Your task to perform on an android device: uninstall "HBO Max: Stream TV & Movies" Image 0: 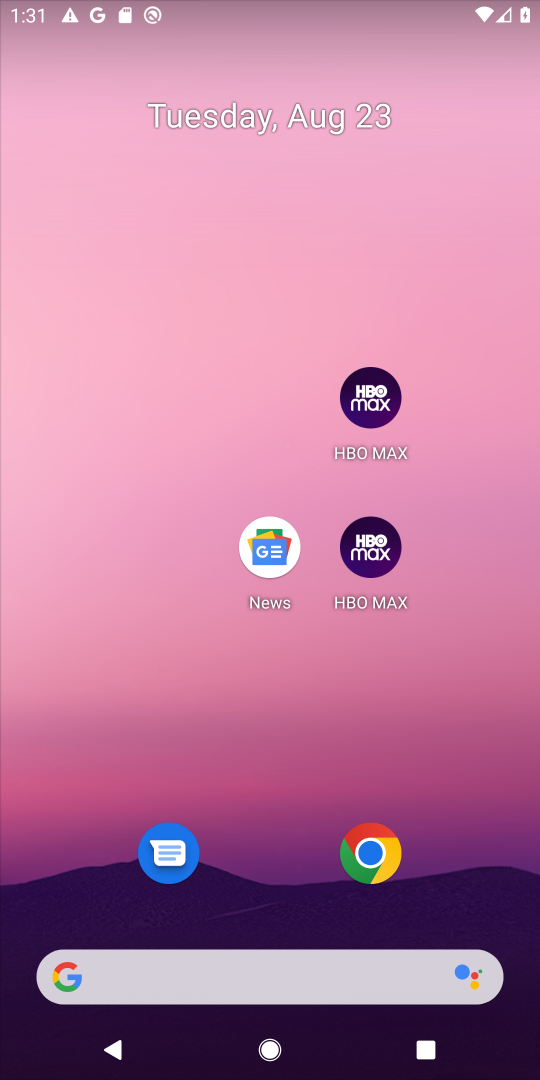
Step 0: drag from (520, 955) to (448, 111)
Your task to perform on an android device: uninstall "HBO Max: Stream TV & Movies" Image 1: 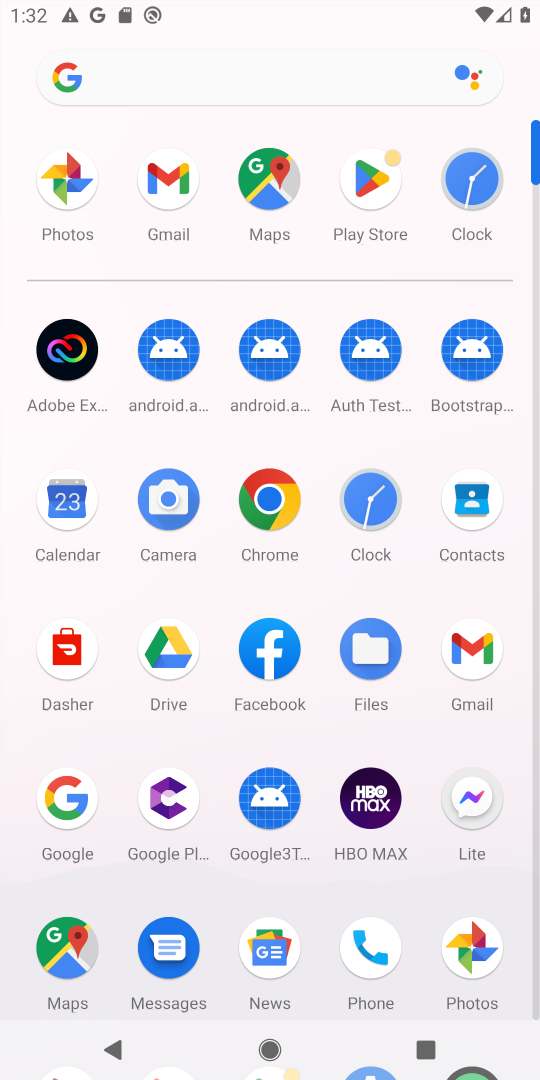
Step 1: drag from (416, 898) to (424, 350)
Your task to perform on an android device: uninstall "HBO Max: Stream TV & Movies" Image 2: 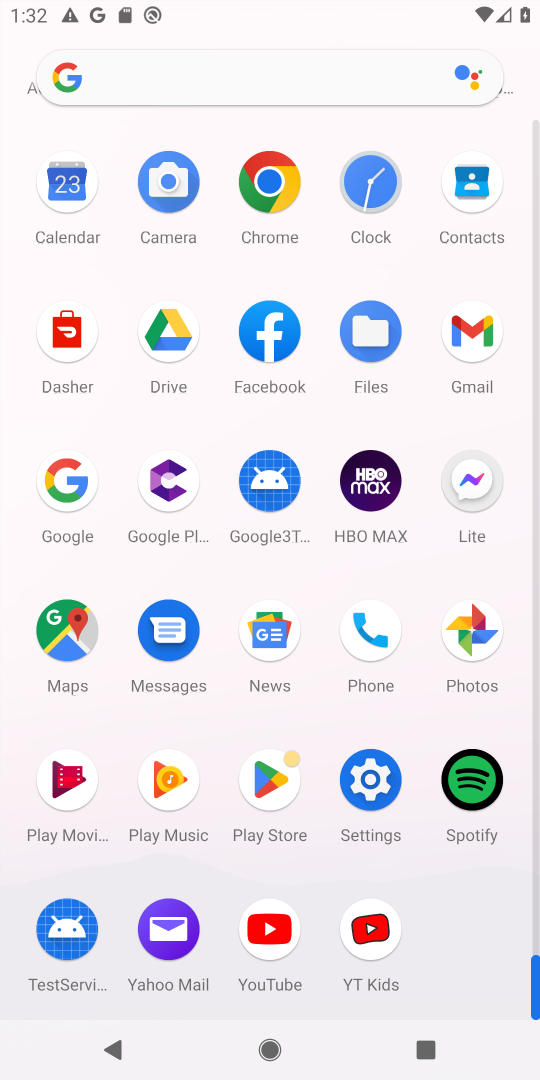
Step 2: click (276, 780)
Your task to perform on an android device: uninstall "HBO Max: Stream TV & Movies" Image 3: 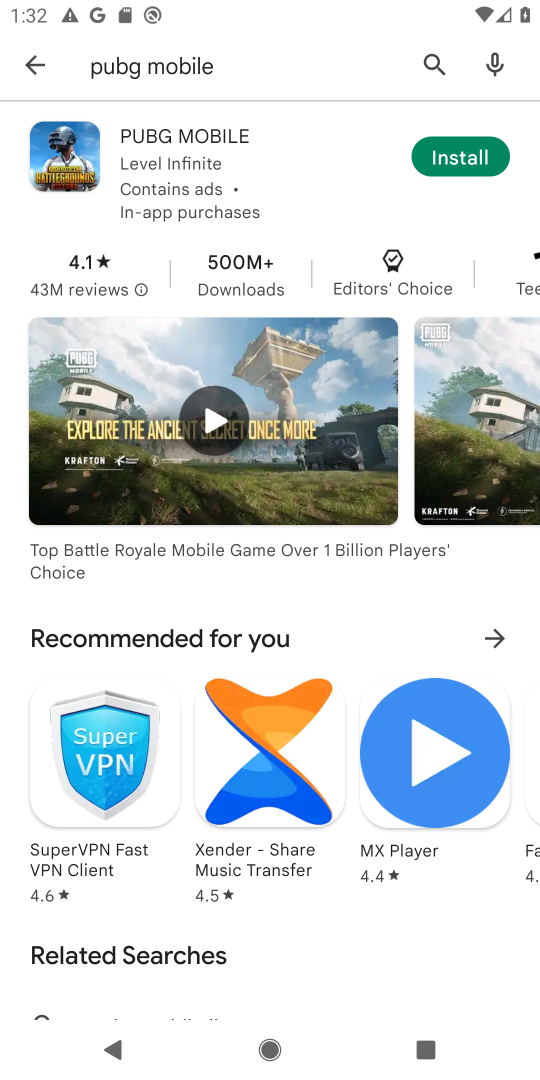
Step 3: click (430, 66)
Your task to perform on an android device: uninstall "HBO Max: Stream TV & Movies" Image 4: 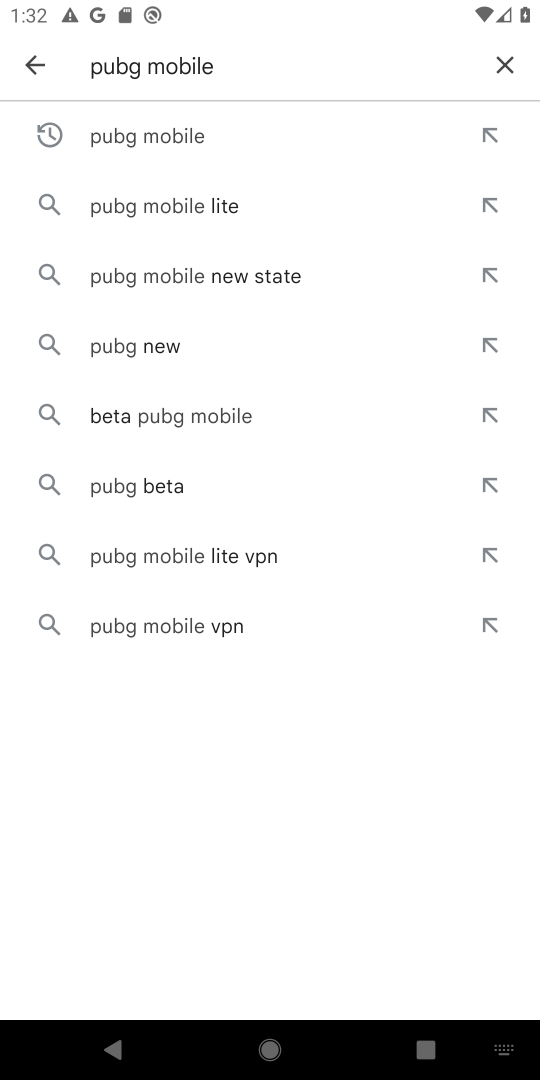
Step 4: click (509, 73)
Your task to perform on an android device: uninstall "HBO Max: Stream TV & Movies" Image 5: 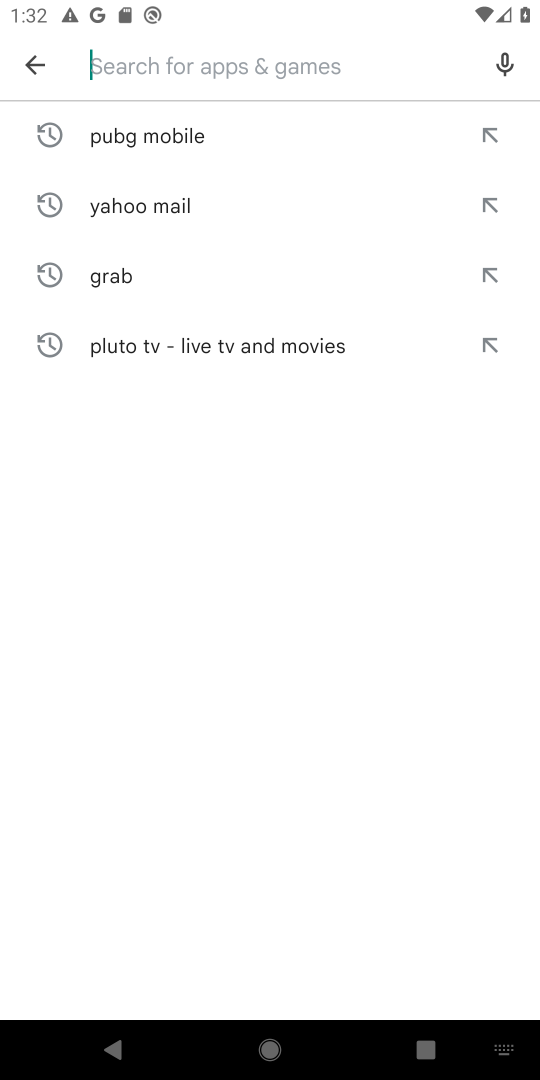
Step 5: type "HBO Max: Stream TV & Movies"
Your task to perform on an android device: uninstall "HBO Max: Stream TV & Movies" Image 6: 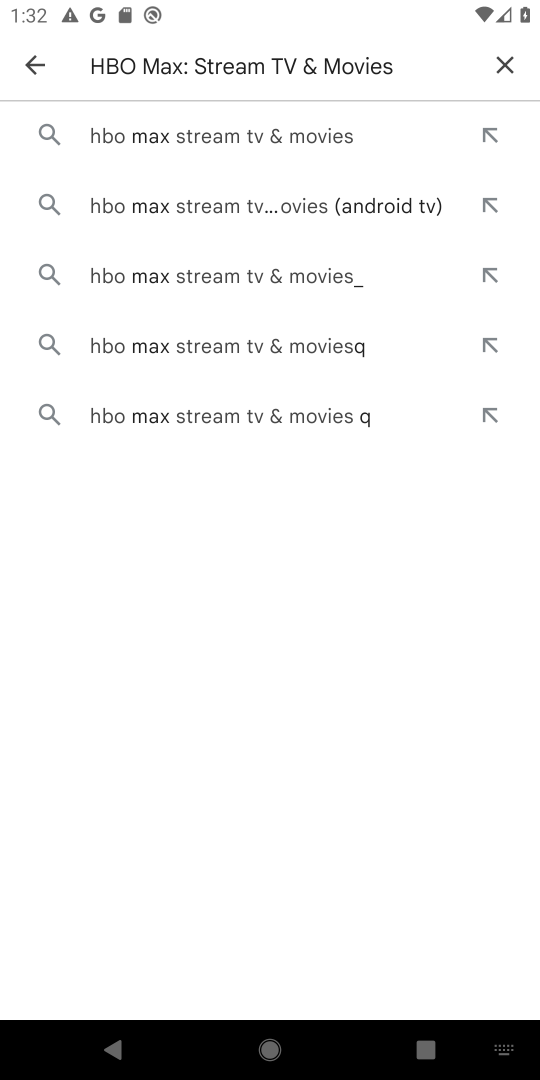
Step 6: click (150, 130)
Your task to perform on an android device: uninstall "HBO Max: Stream TV & Movies" Image 7: 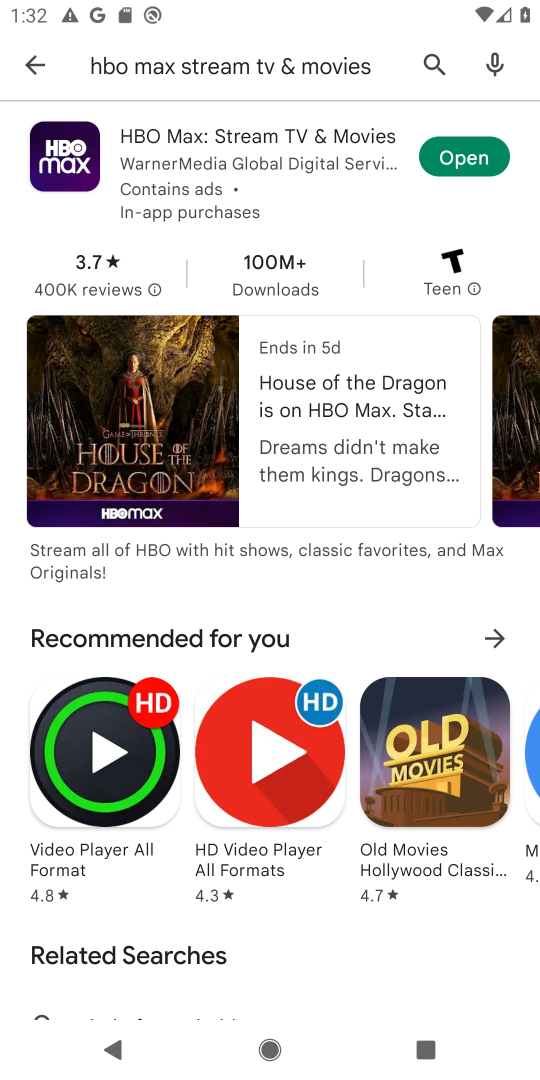
Step 7: click (174, 149)
Your task to perform on an android device: uninstall "HBO Max: Stream TV & Movies" Image 8: 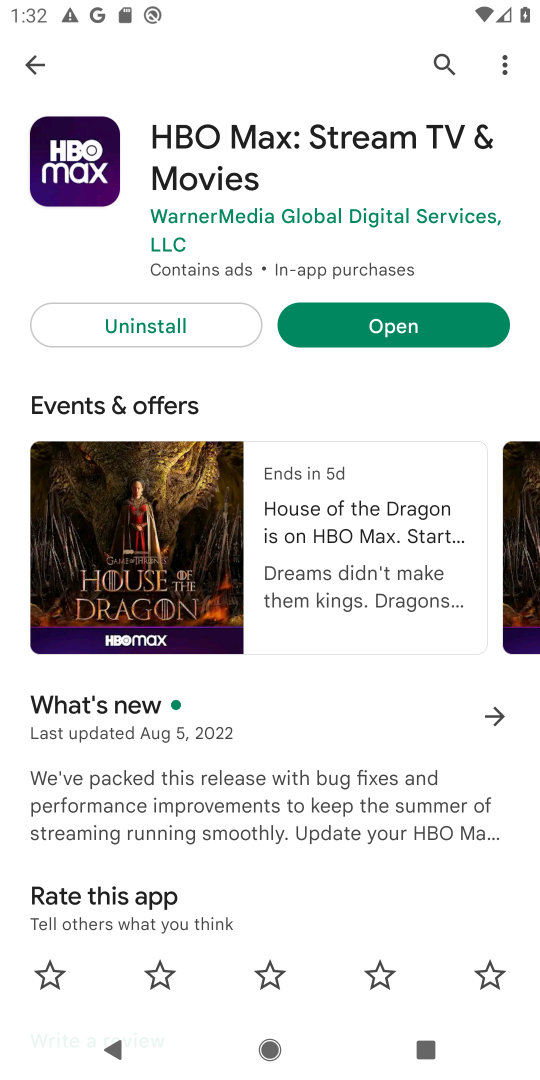
Step 8: click (142, 329)
Your task to perform on an android device: uninstall "HBO Max: Stream TV & Movies" Image 9: 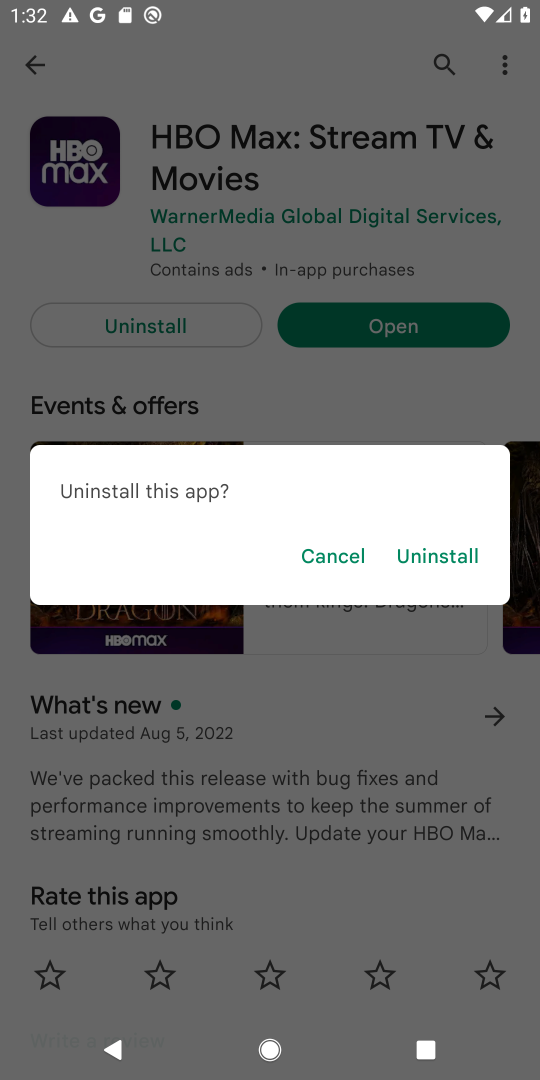
Step 9: click (437, 556)
Your task to perform on an android device: uninstall "HBO Max: Stream TV & Movies" Image 10: 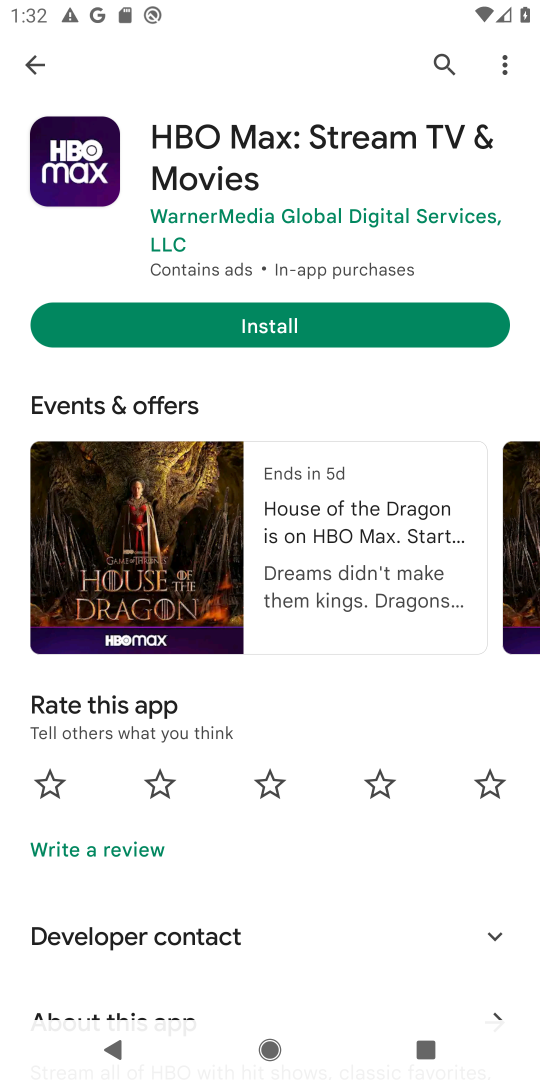
Step 10: task complete